Your task to perform on an android device: Open calendar and show me the third week of next month Image 0: 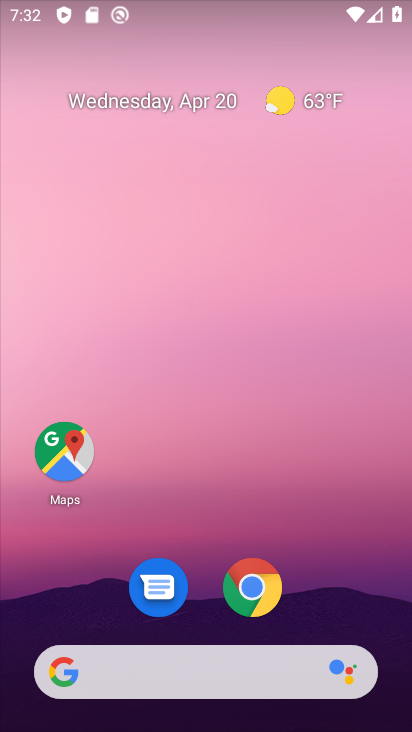
Step 0: click (220, 110)
Your task to perform on an android device: Open calendar and show me the third week of next month Image 1: 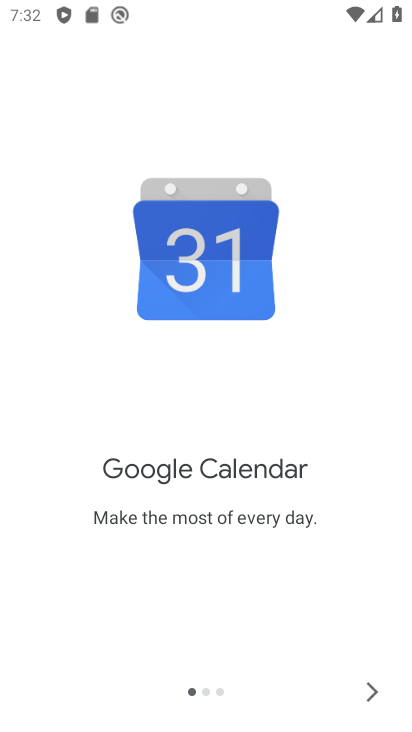
Step 1: click (374, 684)
Your task to perform on an android device: Open calendar and show me the third week of next month Image 2: 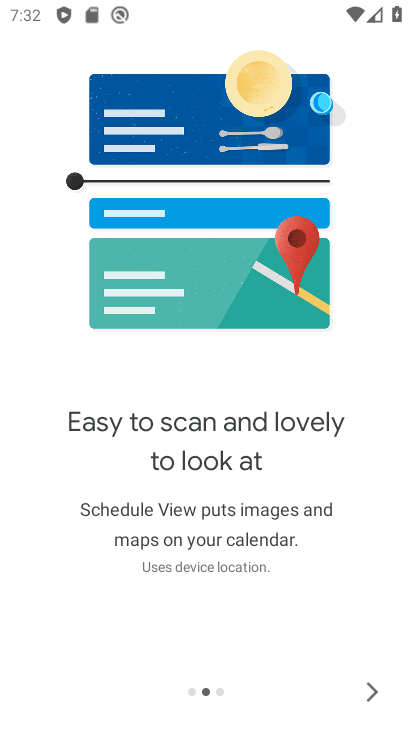
Step 2: click (374, 684)
Your task to perform on an android device: Open calendar and show me the third week of next month Image 3: 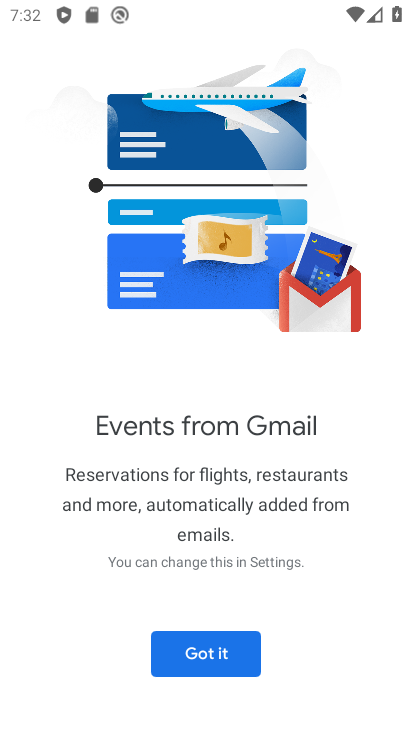
Step 3: click (185, 655)
Your task to perform on an android device: Open calendar and show me the third week of next month Image 4: 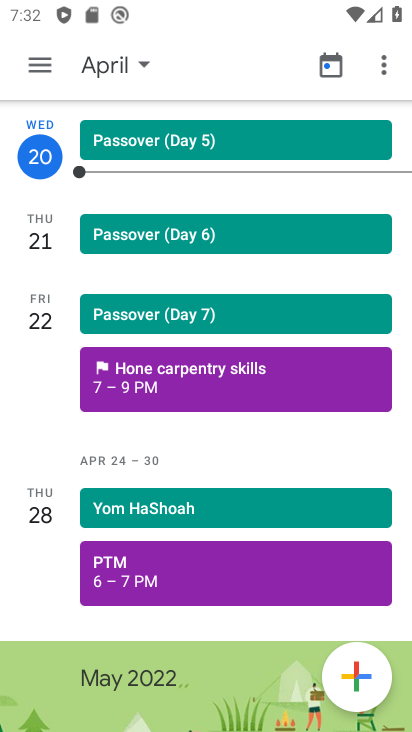
Step 4: click (135, 66)
Your task to perform on an android device: Open calendar and show me the third week of next month Image 5: 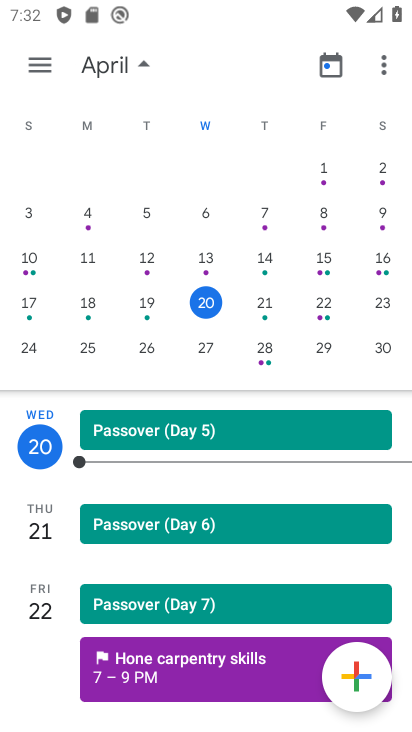
Step 5: drag from (404, 249) to (2, 371)
Your task to perform on an android device: Open calendar and show me the third week of next month Image 6: 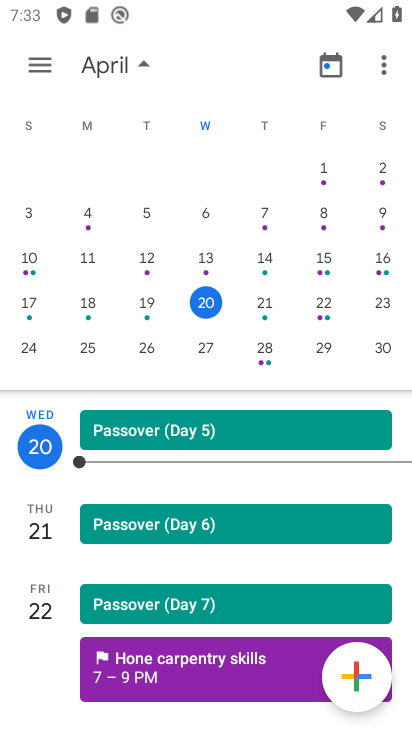
Step 6: drag from (394, 290) to (85, 257)
Your task to perform on an android device: Open calendar and show me the third week of next month Image 7: 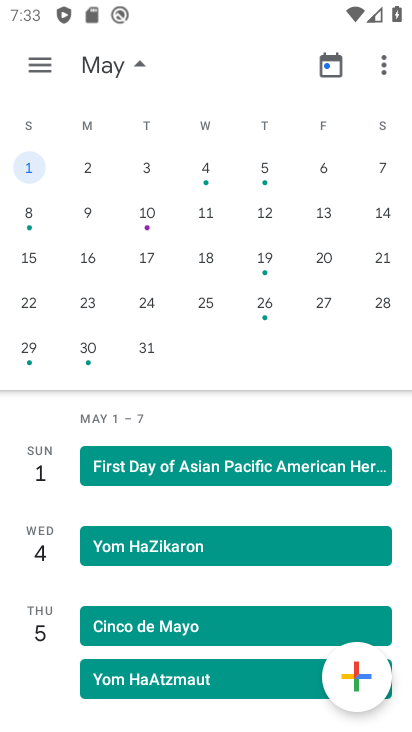
Step 7: click (203, 252)
Your task to perform on an android device: Open calendar and show me the third week of next month Image 8: 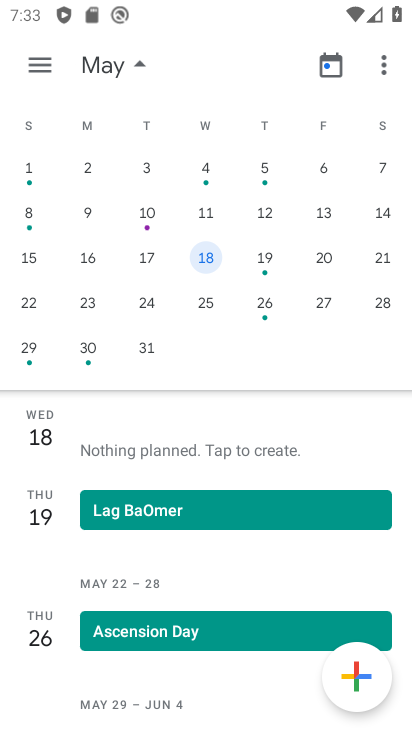
Step 8: task complete